Your task to perform on an android device: Go to accessibility settings Image 0: 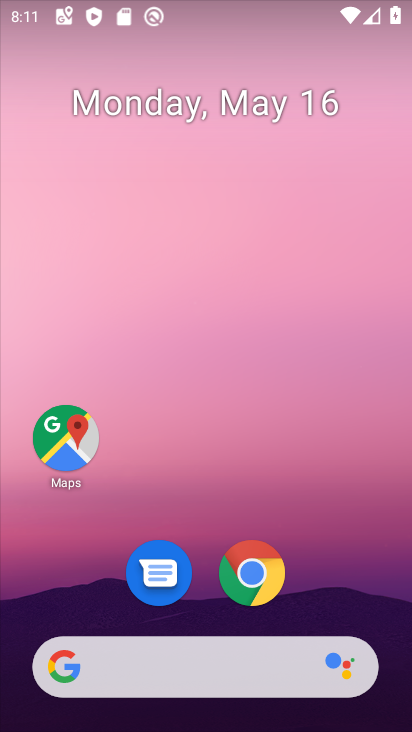
Step 0: drag from (324, 566) to (301, 112)
Your task to perform on an android device: Go to accessibility settings Image 1: 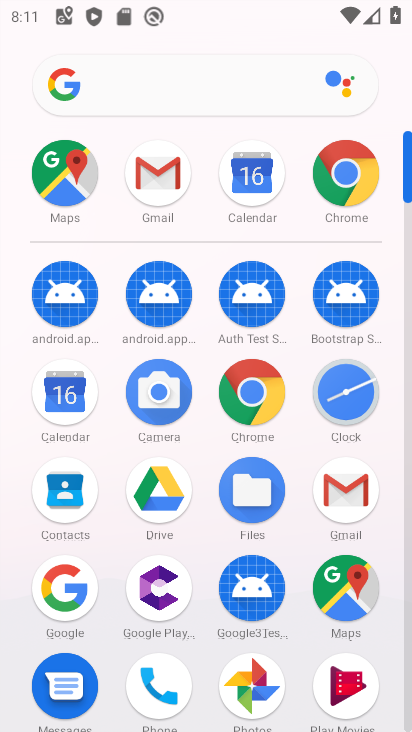
Step 1: drag from (385, 551) to (320, 305)
Your task to perform on an android device: Go to accessibility settings Image 2: 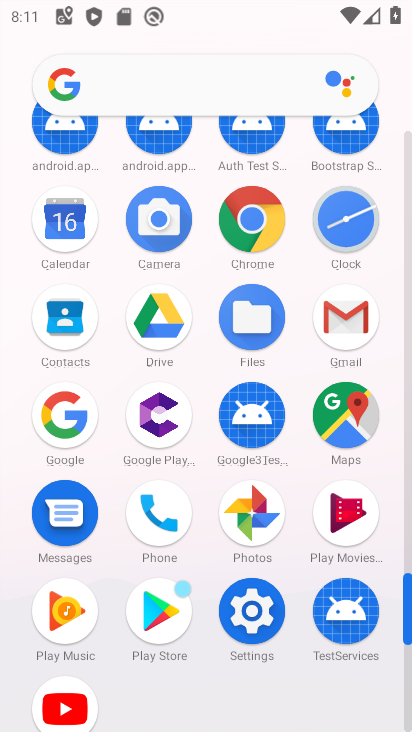
Step 2: click (230, 613)
Your task to perform on an android device: Go to accessibility settings Image 3: 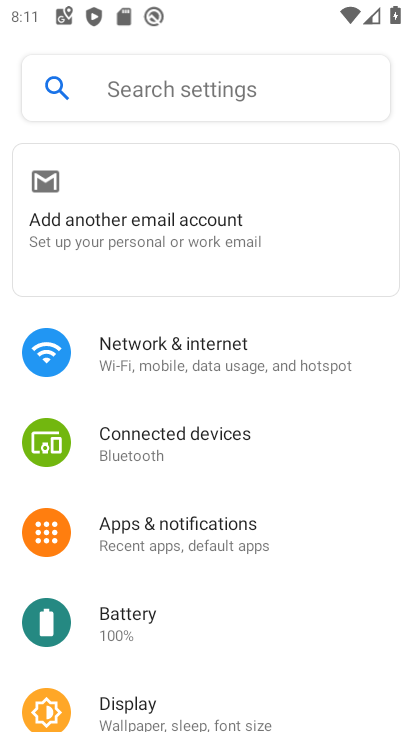
Step 3: drag from (210, 541) to (148, 273)
Your task to perform on an android device: Go to accessibility settings Image 4: 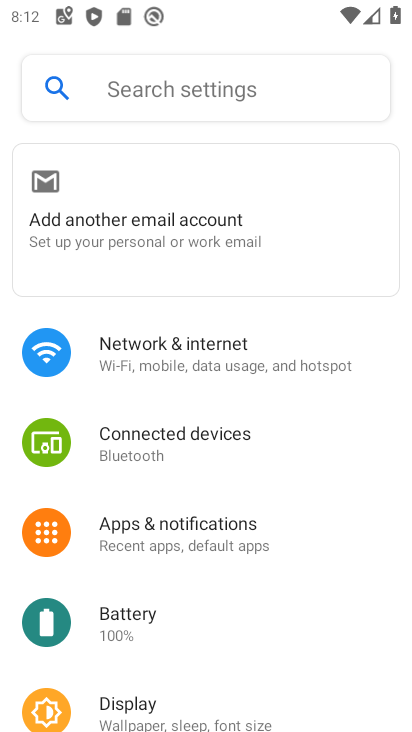
Step 4: drag from (142, 589) to (106, 253)
Your task to perform on an android device: Go to accessibility settings Image 5: 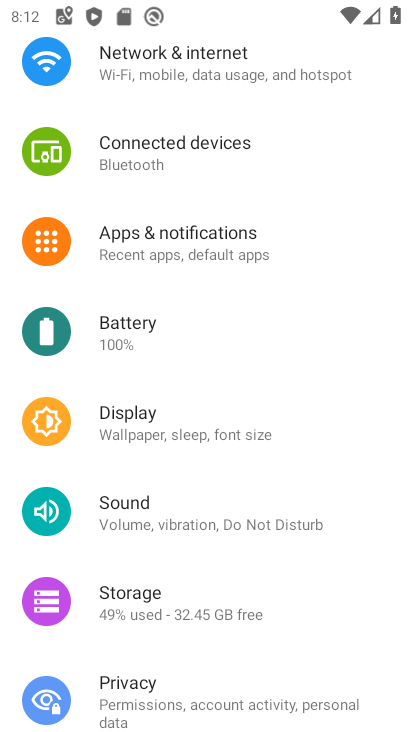
Step 5: drag from (128, 601) to (59, 303)
Your task to perform on an android device: Go to accessibility settings Image 6: 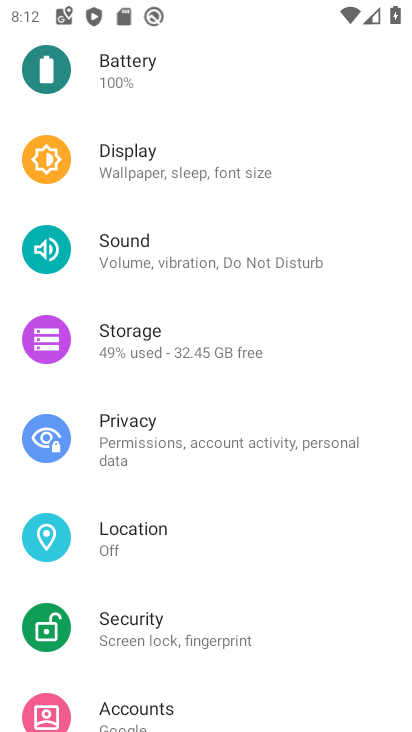
Step 6: drag from (167, 686) to (123, 309)
Your task to perform on an android device: Go to accessibility settings Image 7: 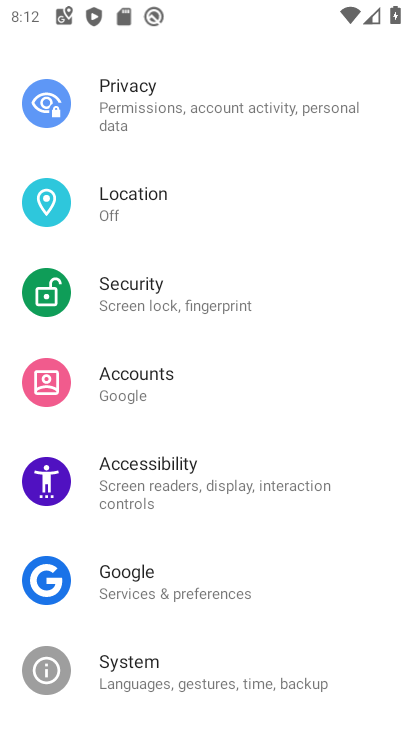
Step 7: click (159, 489)
Your task to perform on an android device: Go to accessibility settings Image 8: 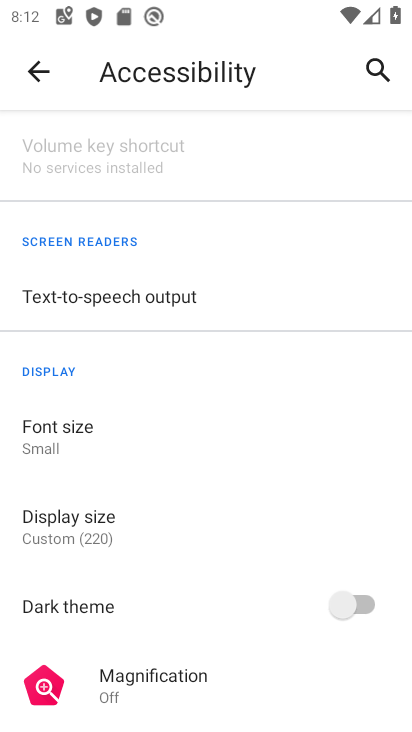
Step 8: task complete